Your task to perform on an android device: Search for macbook on newegg, select the first entry, and add it to the cart. Image 0: 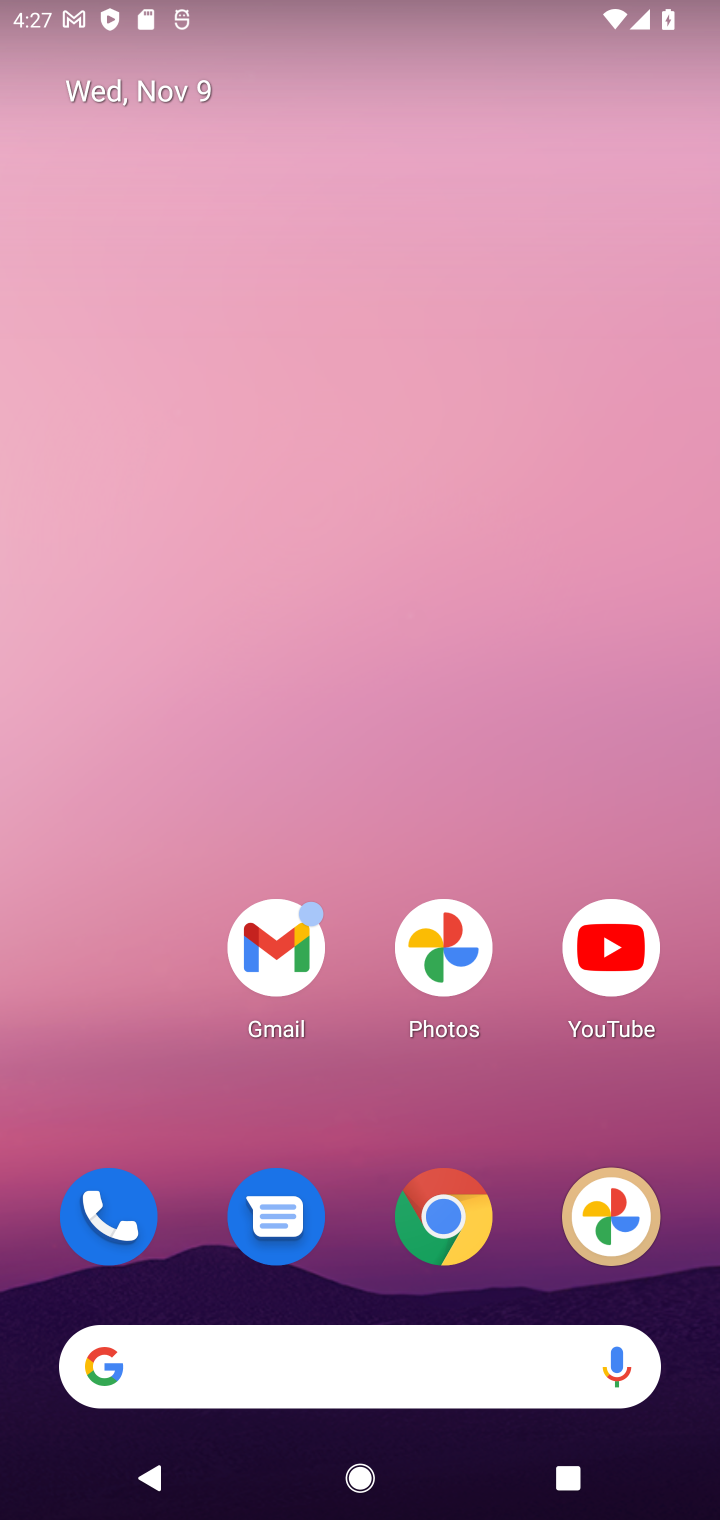
Step 0: drag from (352, 1107) to (376, 0)
Your task to perform on an android device: Search for macbook on newegg, select the first entry, and add it to the cart. Image 1: 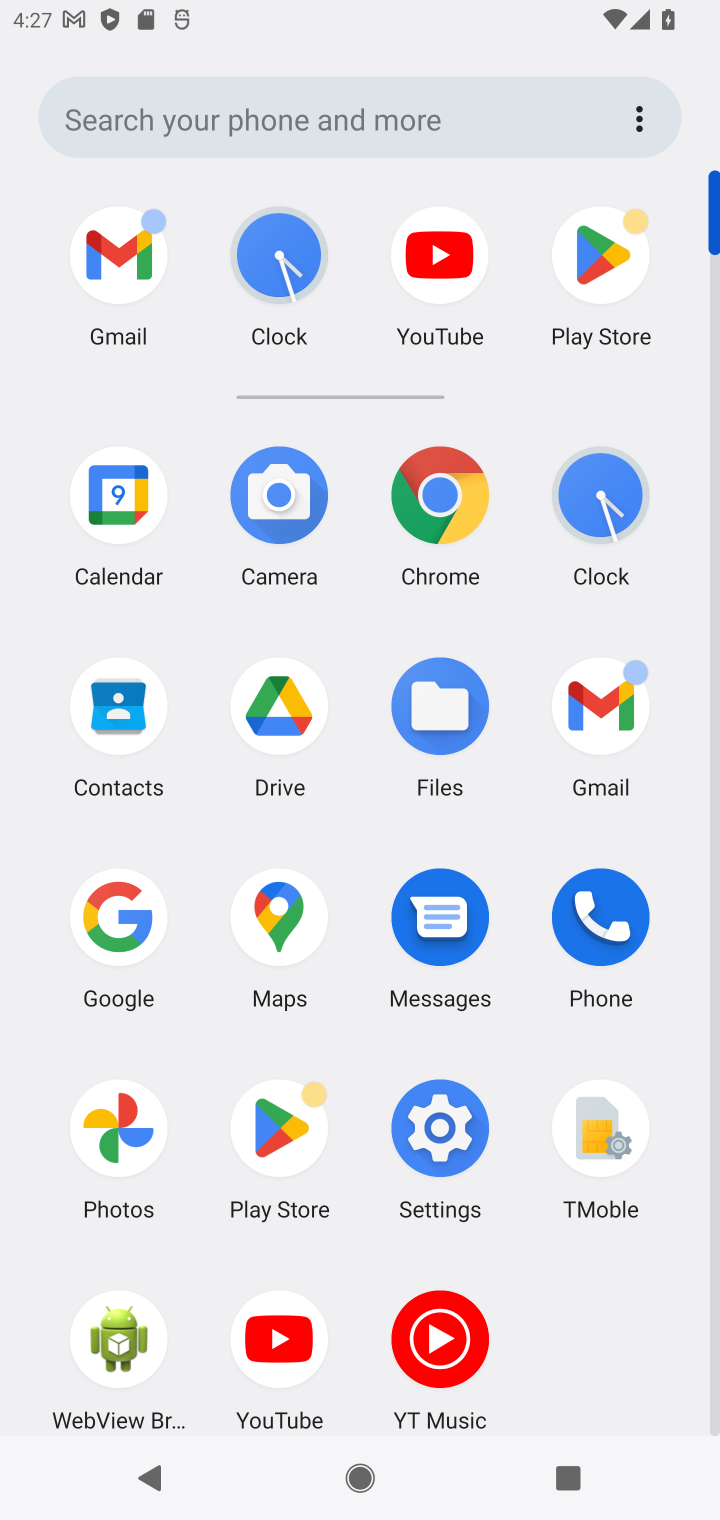
Step 1: click (449, 492)
Your task to perform on an android device: Search for macbook on newegg, select the first entry, and add it to the cart. Image 2: 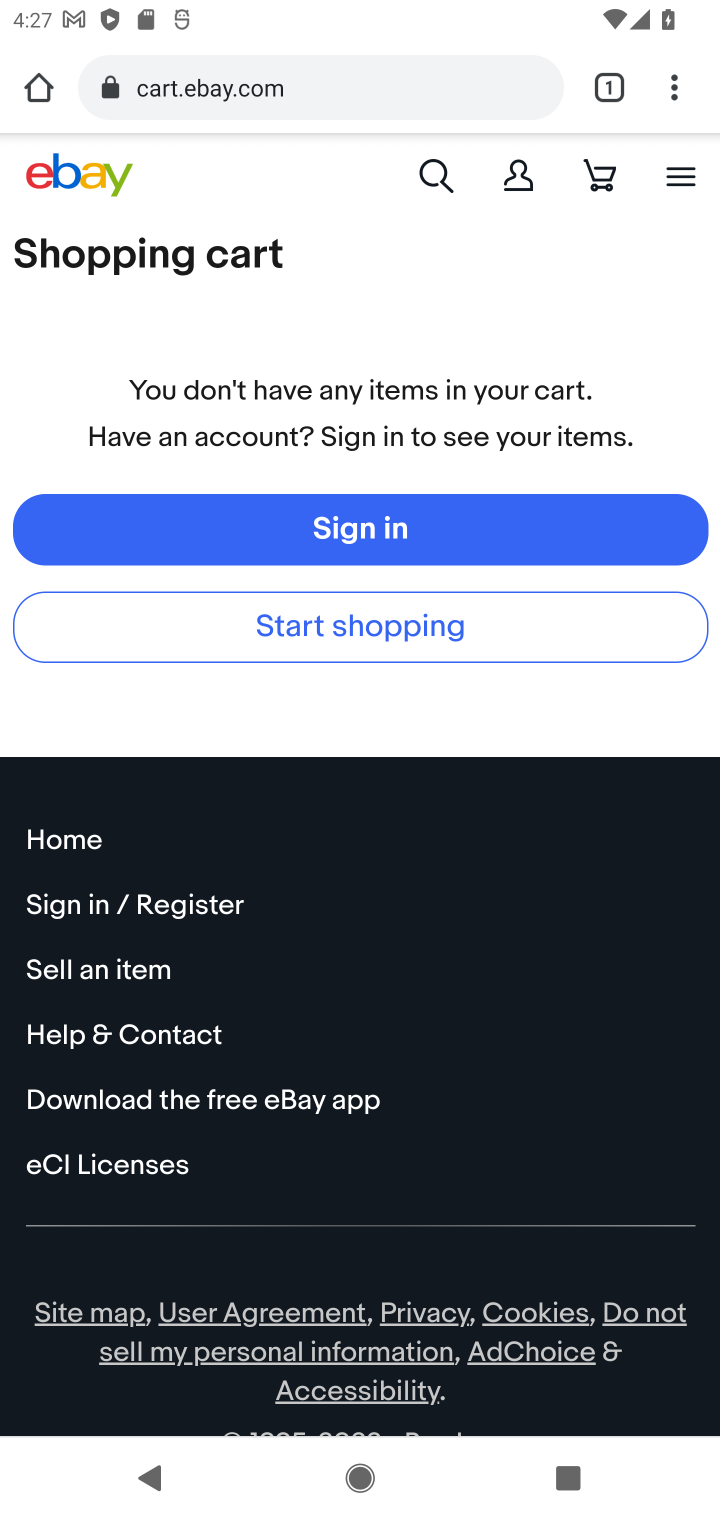
Step 2: click (395, 72)
Your task to perform on an android device: Search for macbook on newegg, select the first entry, and add it to the cart. Image 3: 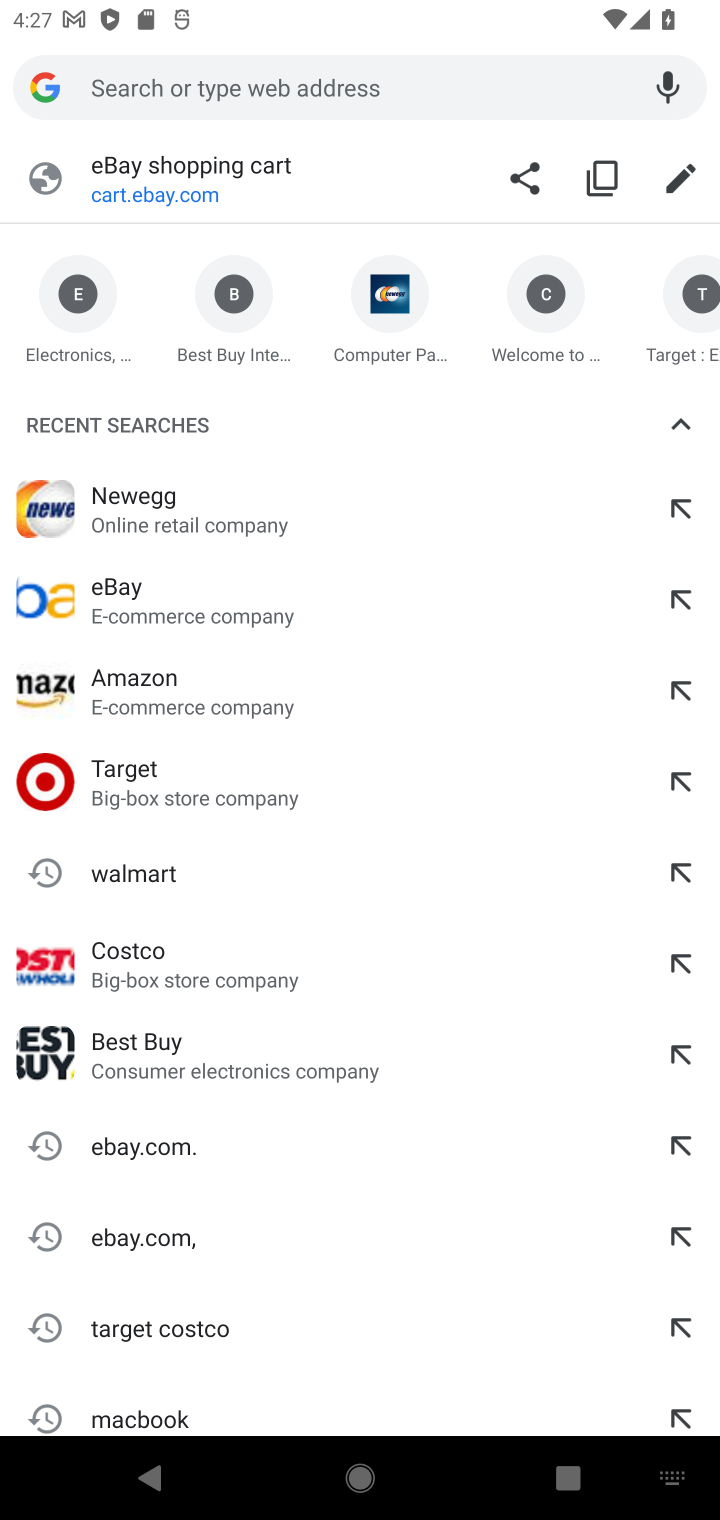
Step 3: click (145, 503)
Your task to perform on an android device: Search for macbook on newegg, select the first entry, and add it to the cart. Image 4: 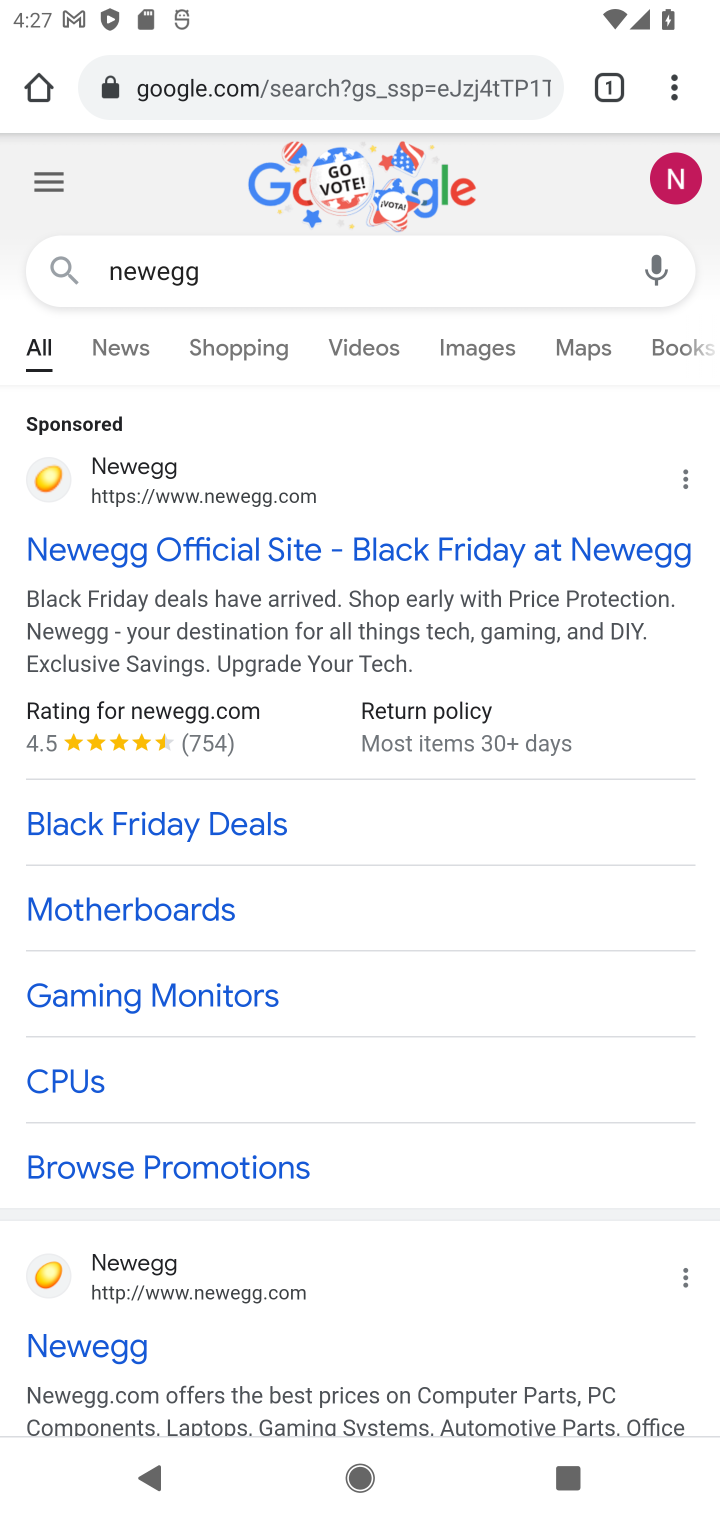
Step 4: drag from (427, 1024) to (423, 821)
Your task to perform on an android device: Search for macbook on newegg, select the first entry, and add it to the cart. Image 5: 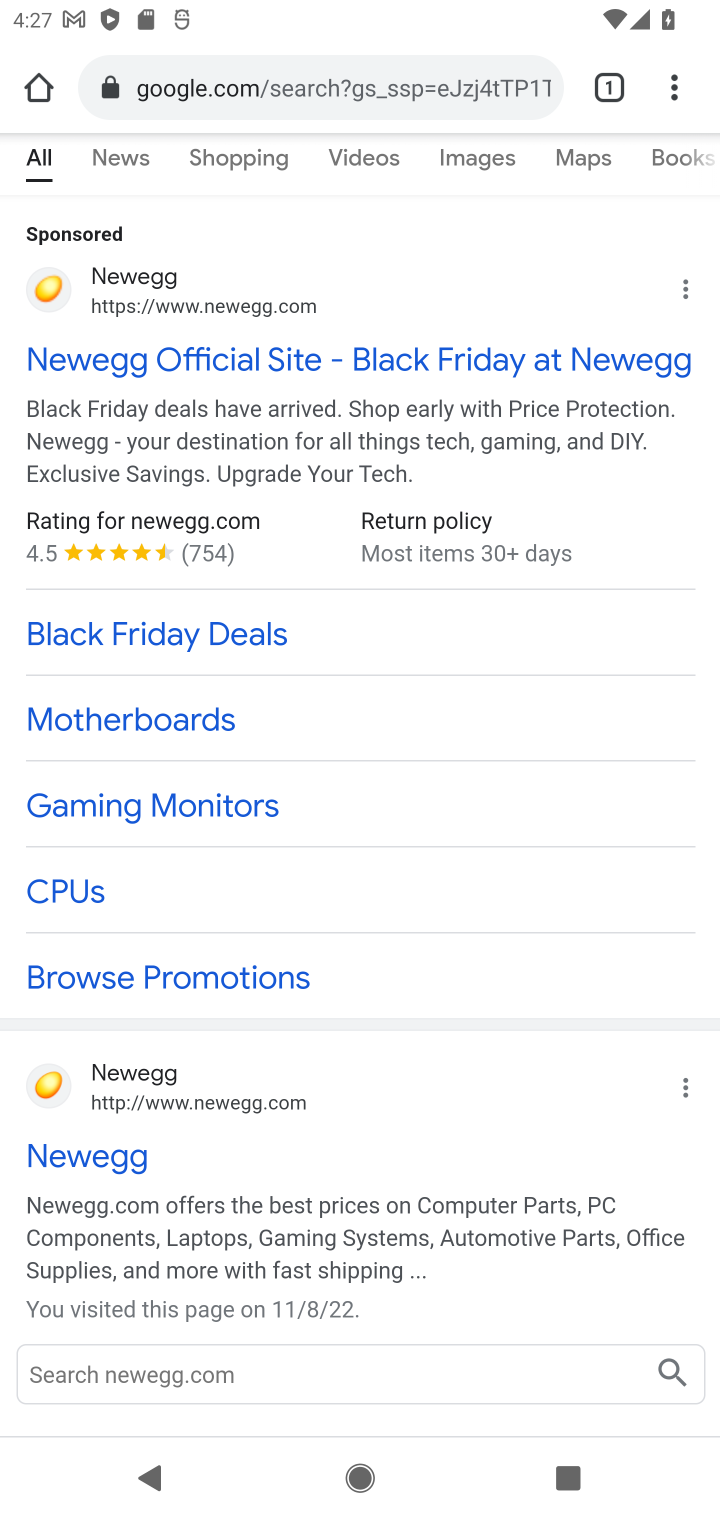
Step 5: click (108, 1152)
Your task to perform on an android device: Search for macbook on newegg, select the first entry, and add it to the cart. Image 6: 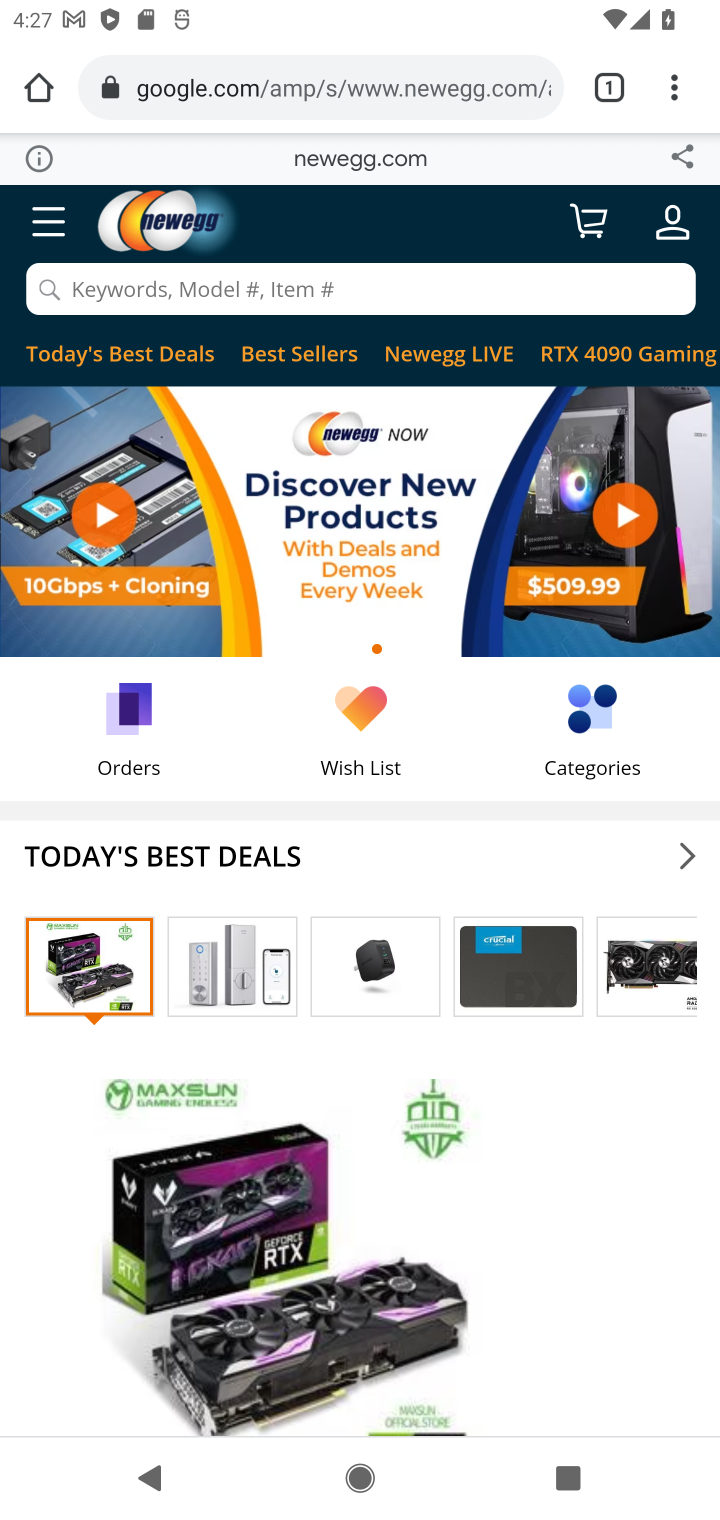
Step 6: click (329, 292)
Your task to perform on an android device: Search for macbook on newegg, select the first entry, and add it to the cart. Image 7: 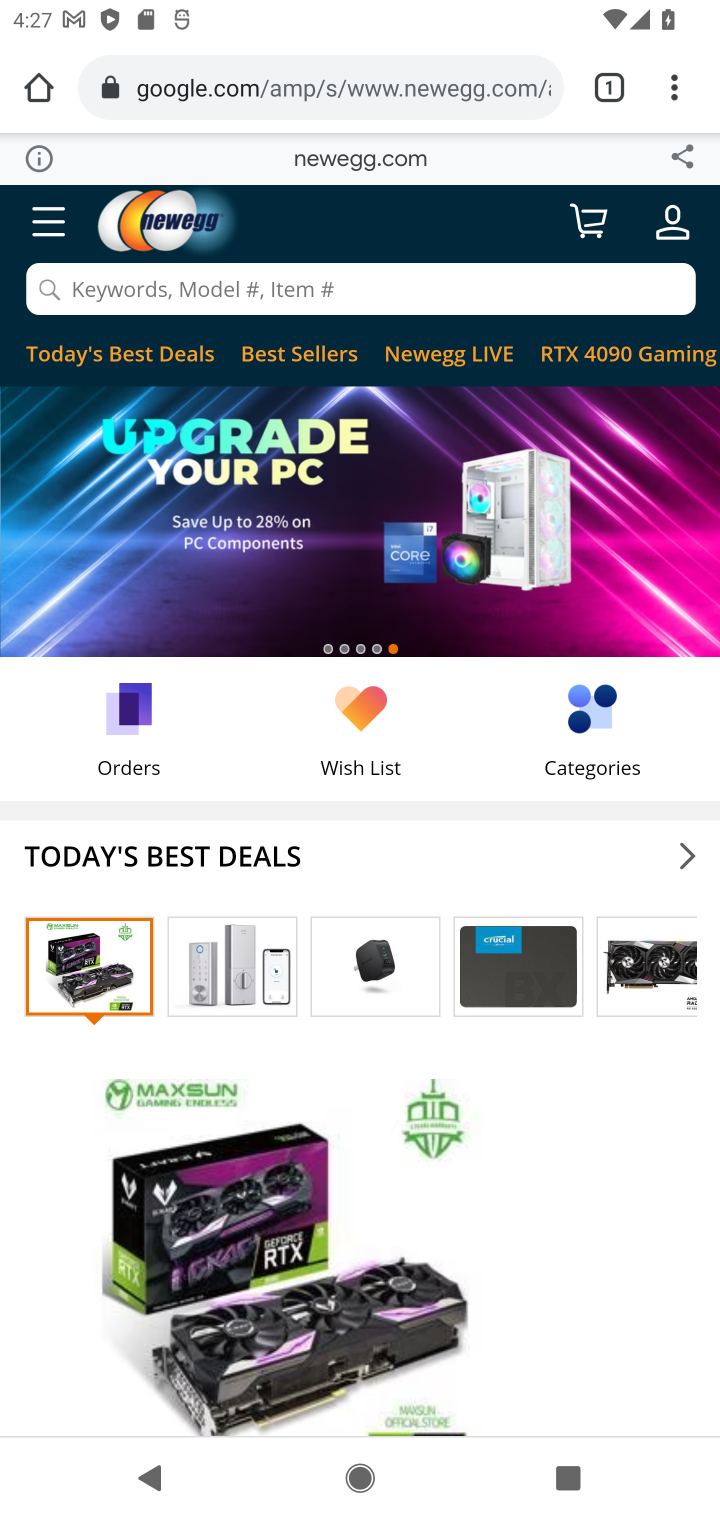
Step 7: click (261, 277)
Your task to perform on an android device: Search for macbook on newegg, select the first entry, and add it to the cart. Image 8: 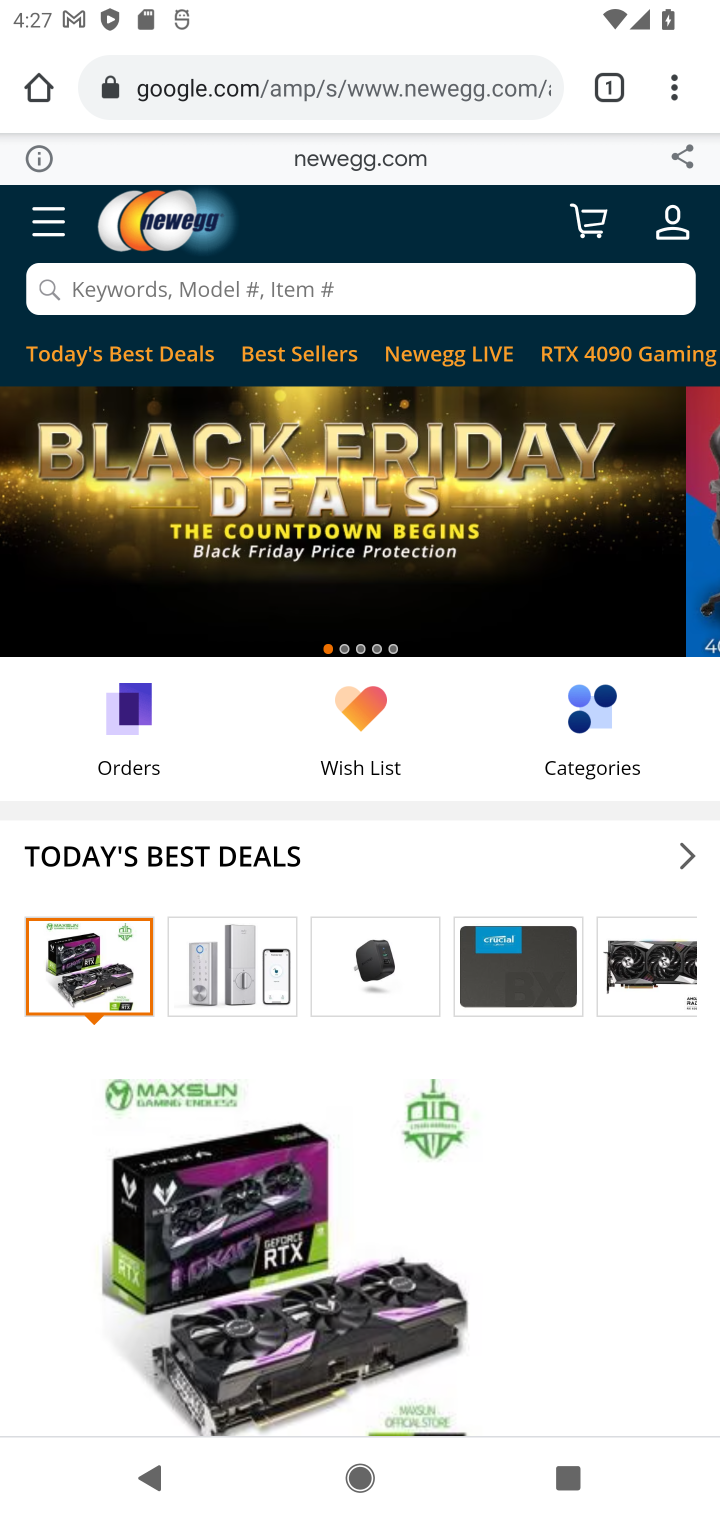
Step 8: click (527, 285)
Your task to perform on an android device: Search for macbook on newegg, select the first entry, and add it to the cart. Image 9: 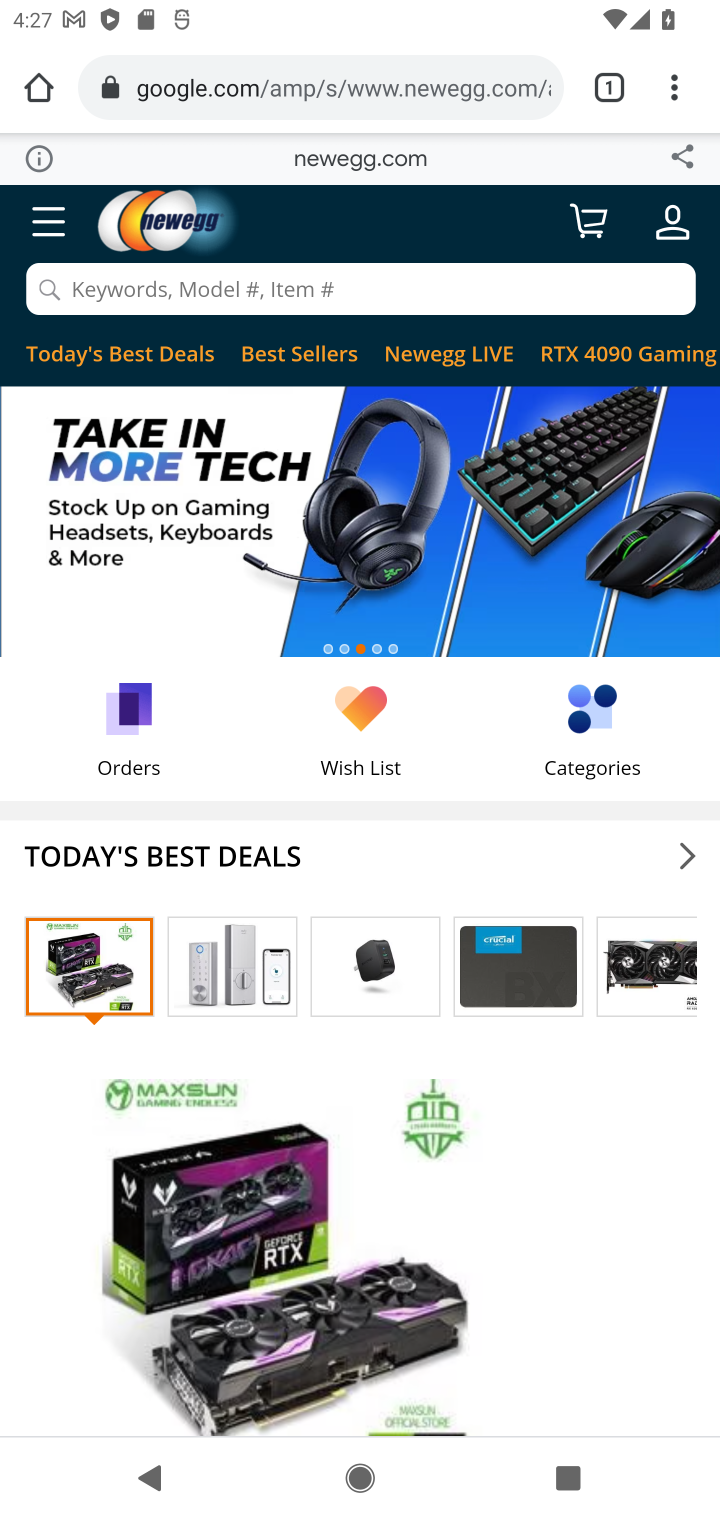
Step 9: type "macbook"
Your task to perform on an android device: Search for macbook on newegg, select the first entry, and add it to the cart. Image 10: 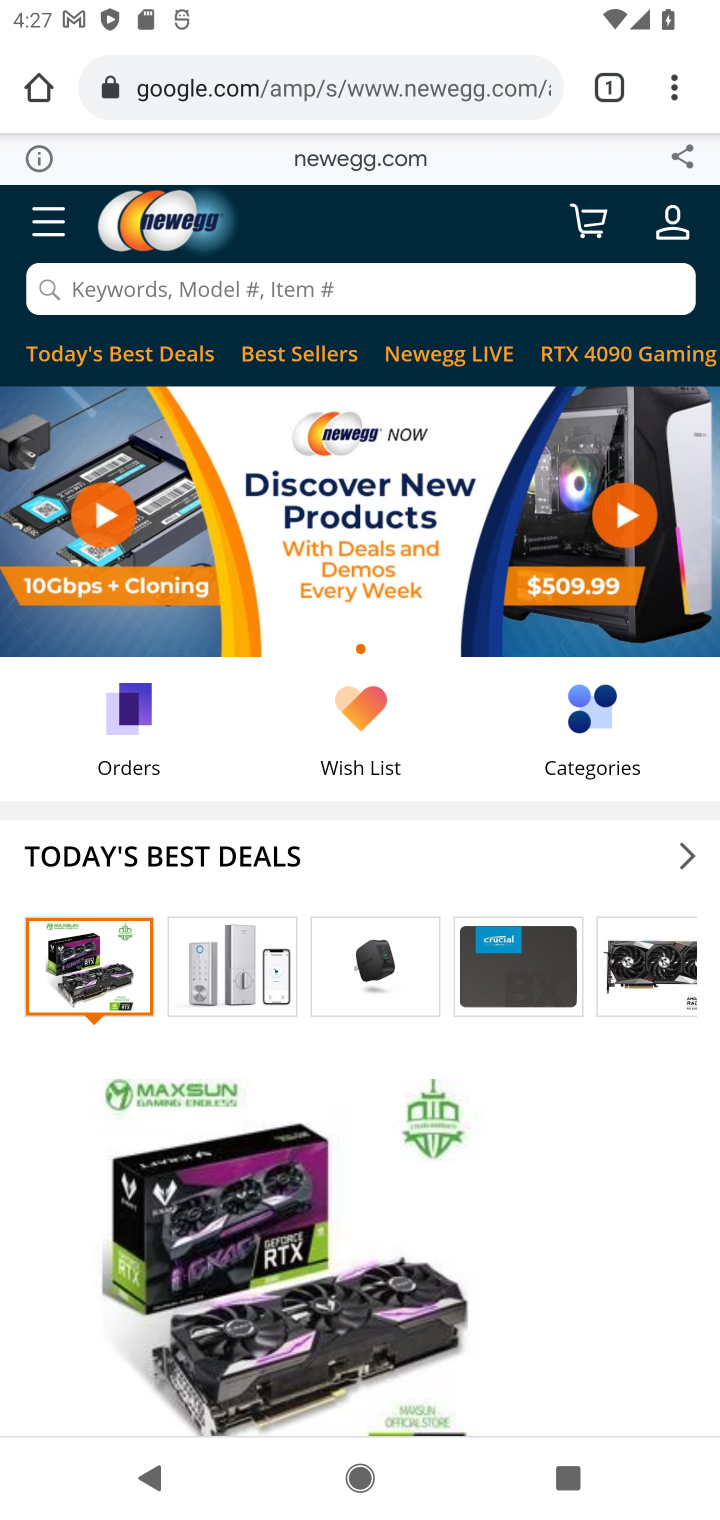
Step 10: press enter
Your task to perform on an android device: Search for macbook on newegg, select the first entry, and add it to the cart. Image 11: 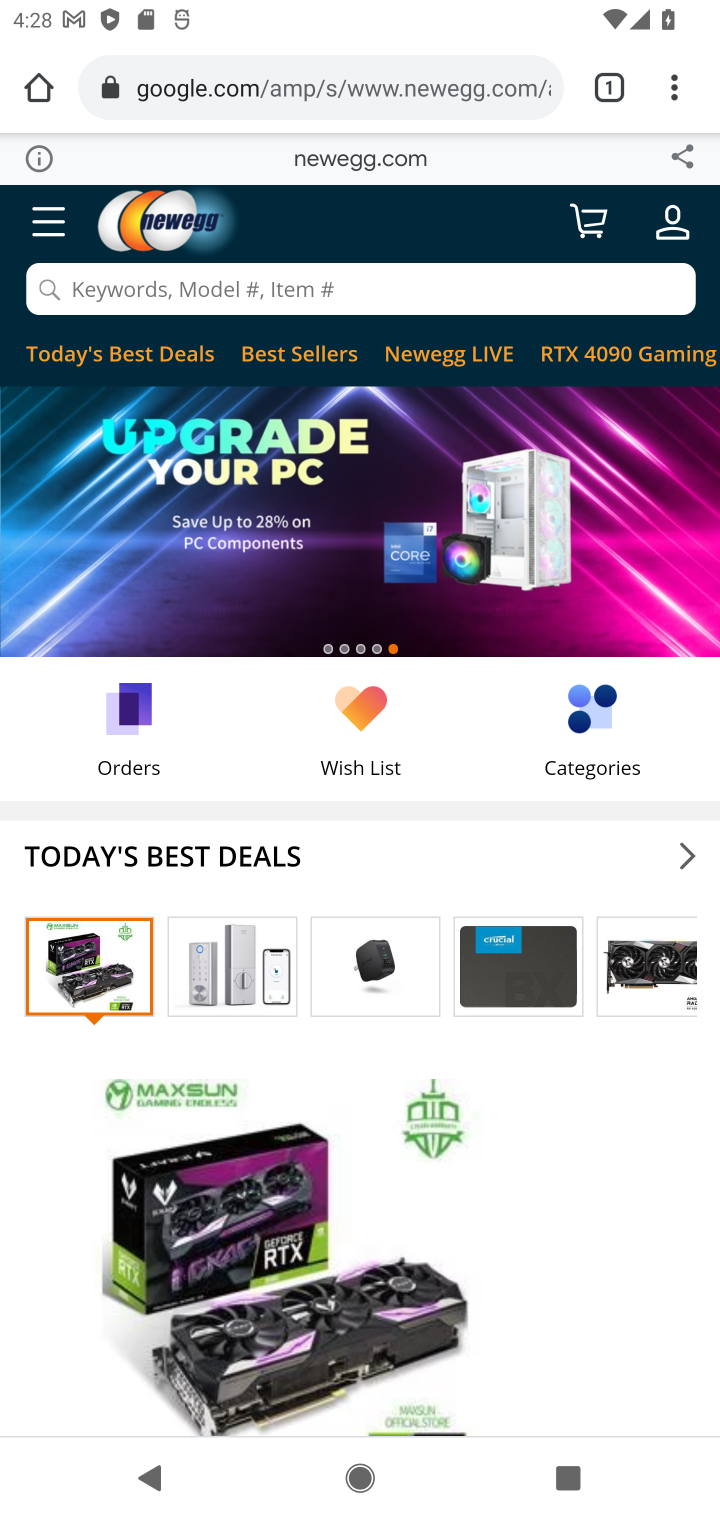
Step 11: click (456, 286)
Your task to perform on an android device: Search for macbook on newegg, select the first entry, and add it to the cart. Image 12: 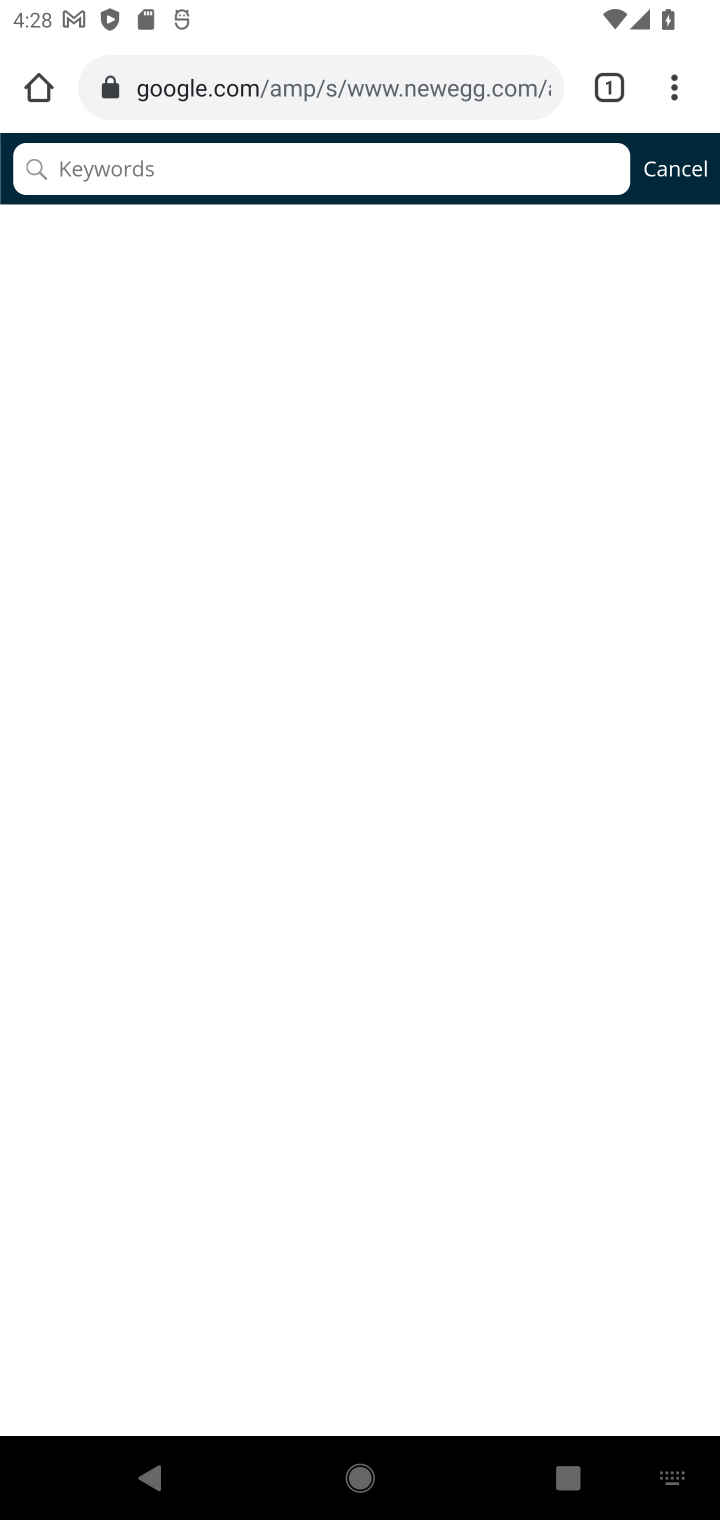
Step 12: type "macbook"
Your task to perform on an android device: Search for macbook on newegg, select the first entry, and add it to the cart. Image 13: 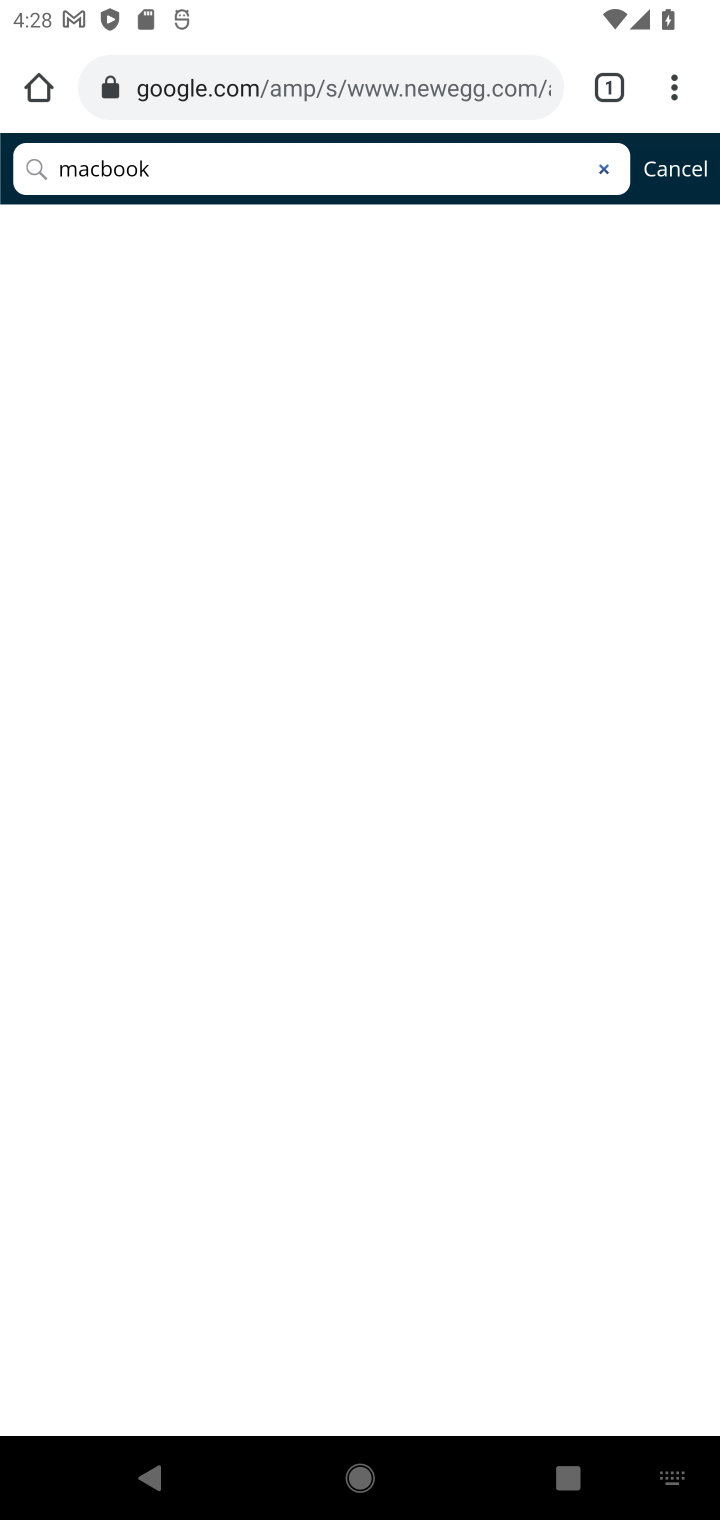
Step 13: press enter
Your task to perform on an android device: Search for macbook on newegg, select the first entry, and add it to the cart. Image 14: 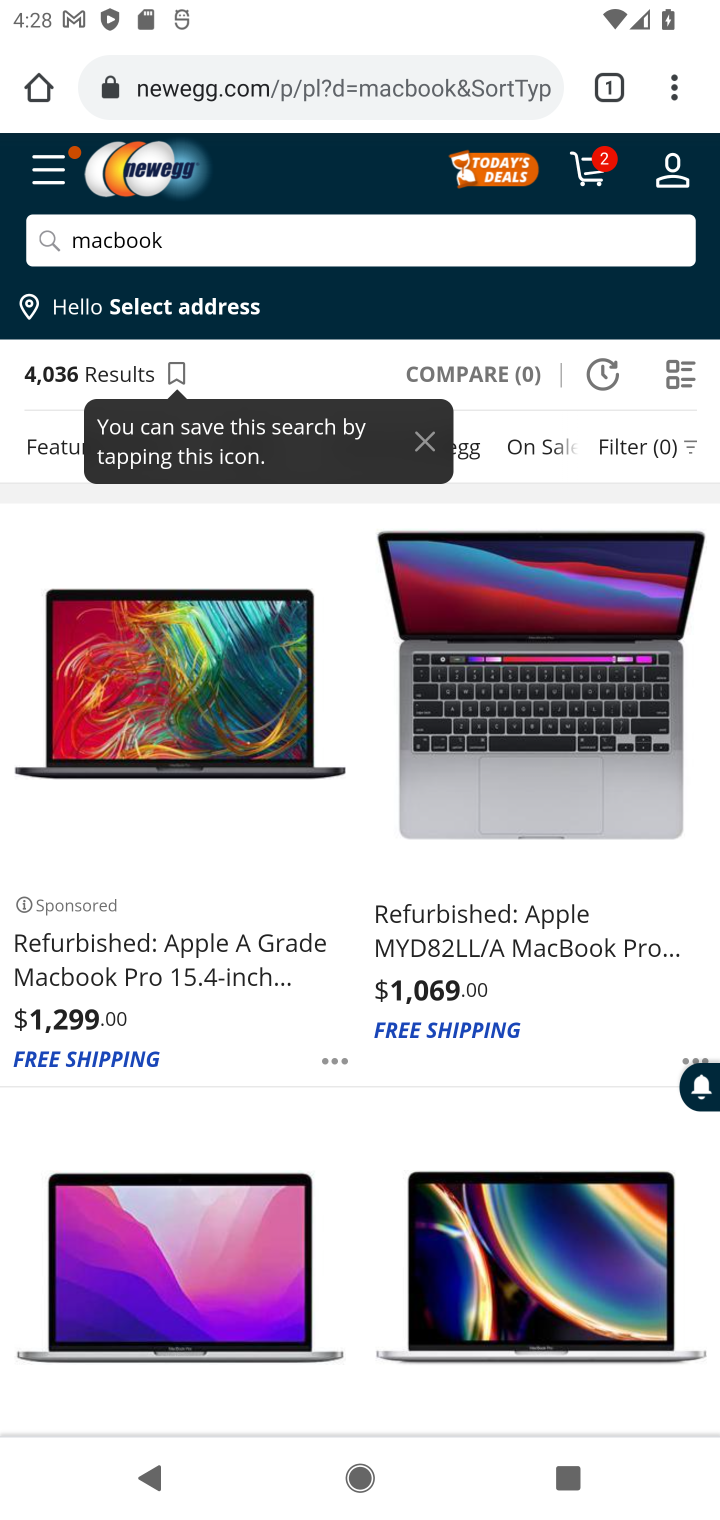
Step 14: click (530, 712)
Your task to perform on an android device: Search for macbook on newegg, select the first entry, and add it to the cart. Image 15: 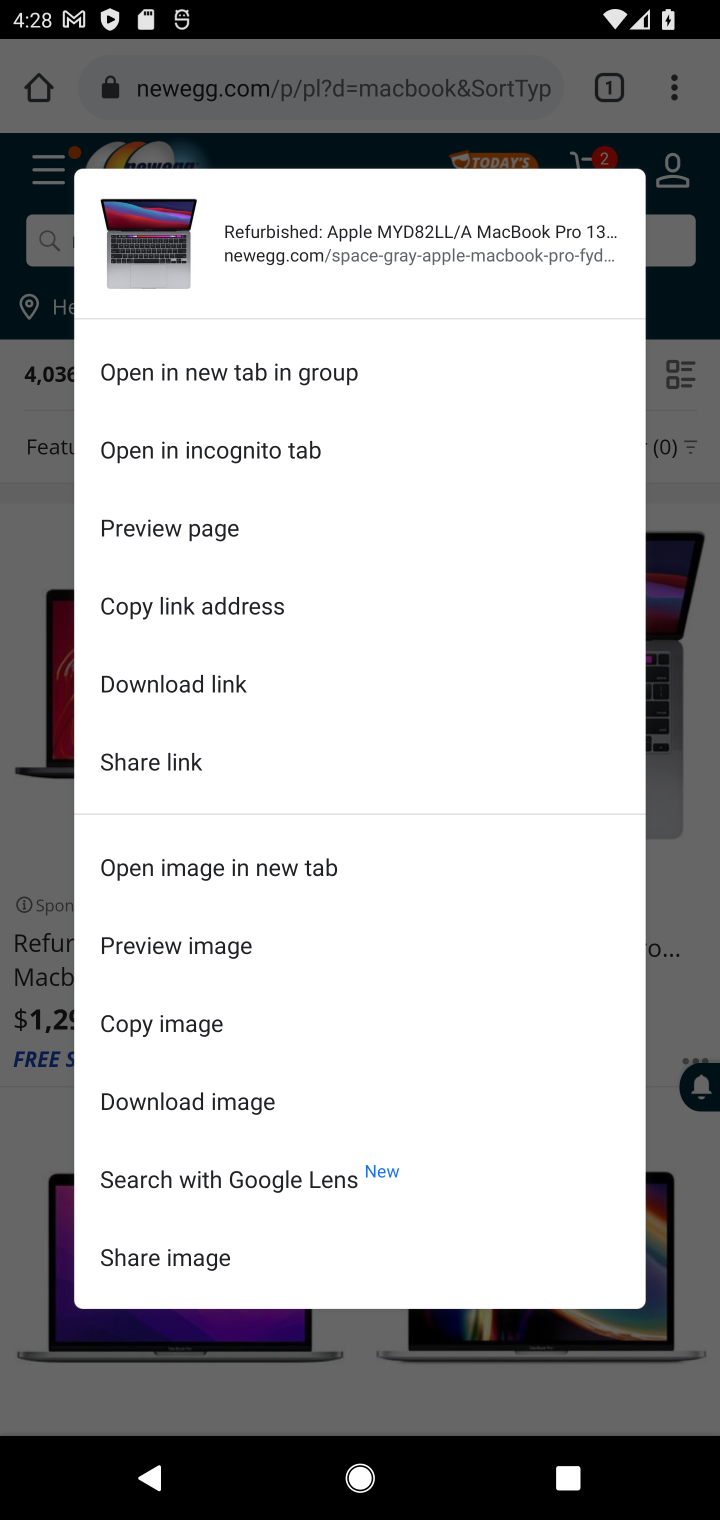
Step 15: click (670, 670)
Your task to perform on an android device: Search for macbook on newegg, select the first entry, and add it to the cart. Image 16: 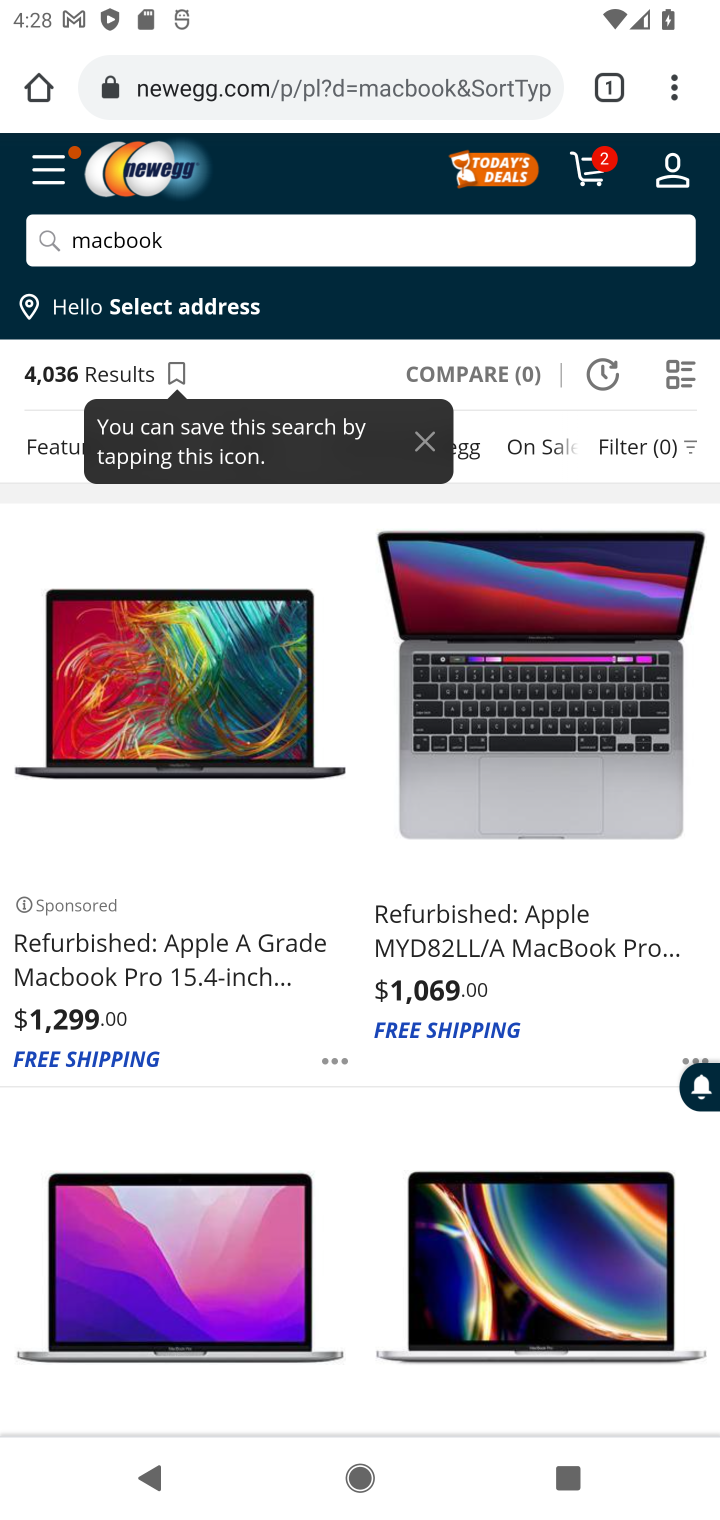
Step 16: click (486, 906)
Your task to perform on an android device: Search for macbook on newegg, select the first entry, and add it to the cart. Image 17: 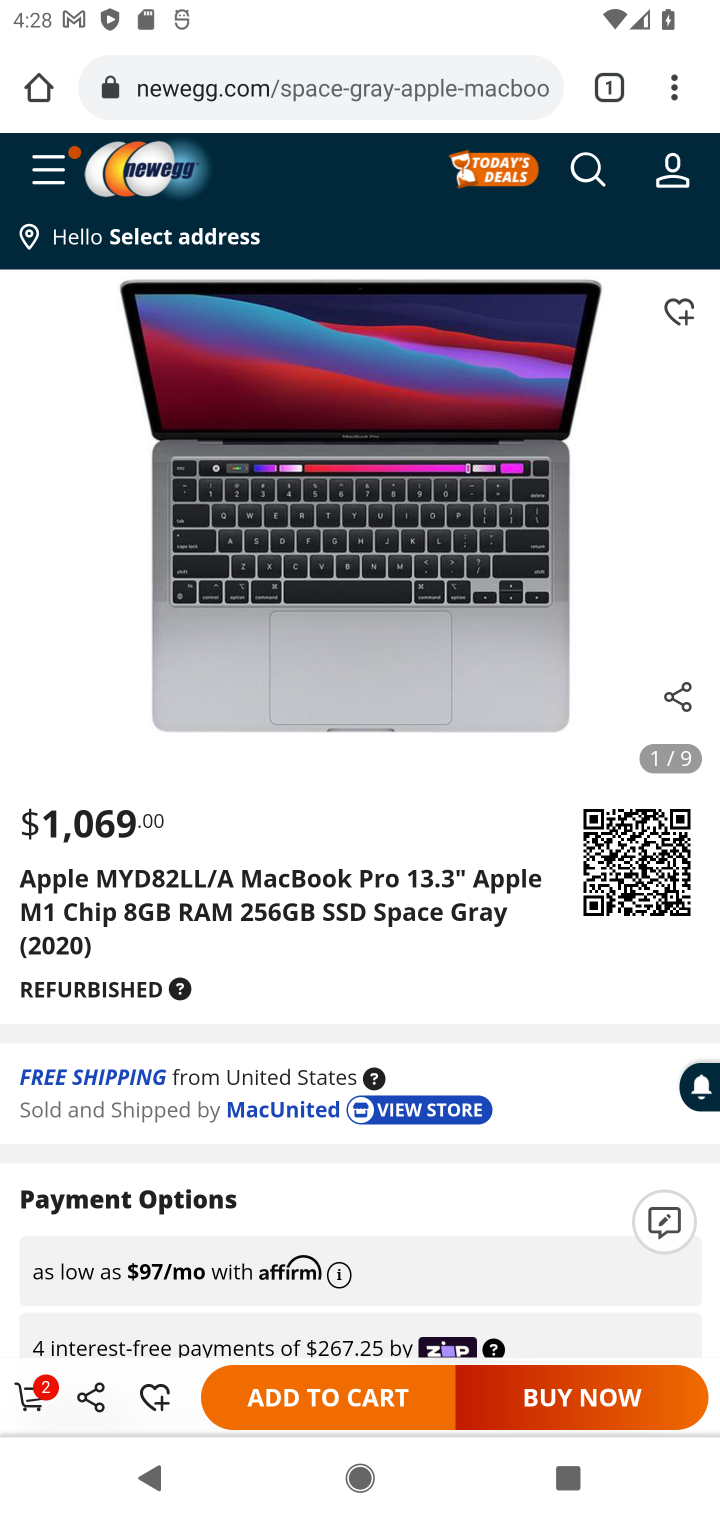
Step 17: click (351, 1403)
Your task to perform on an android device: Search for macbook on newegg, select the first entry, and add it to the cart. Image 18: 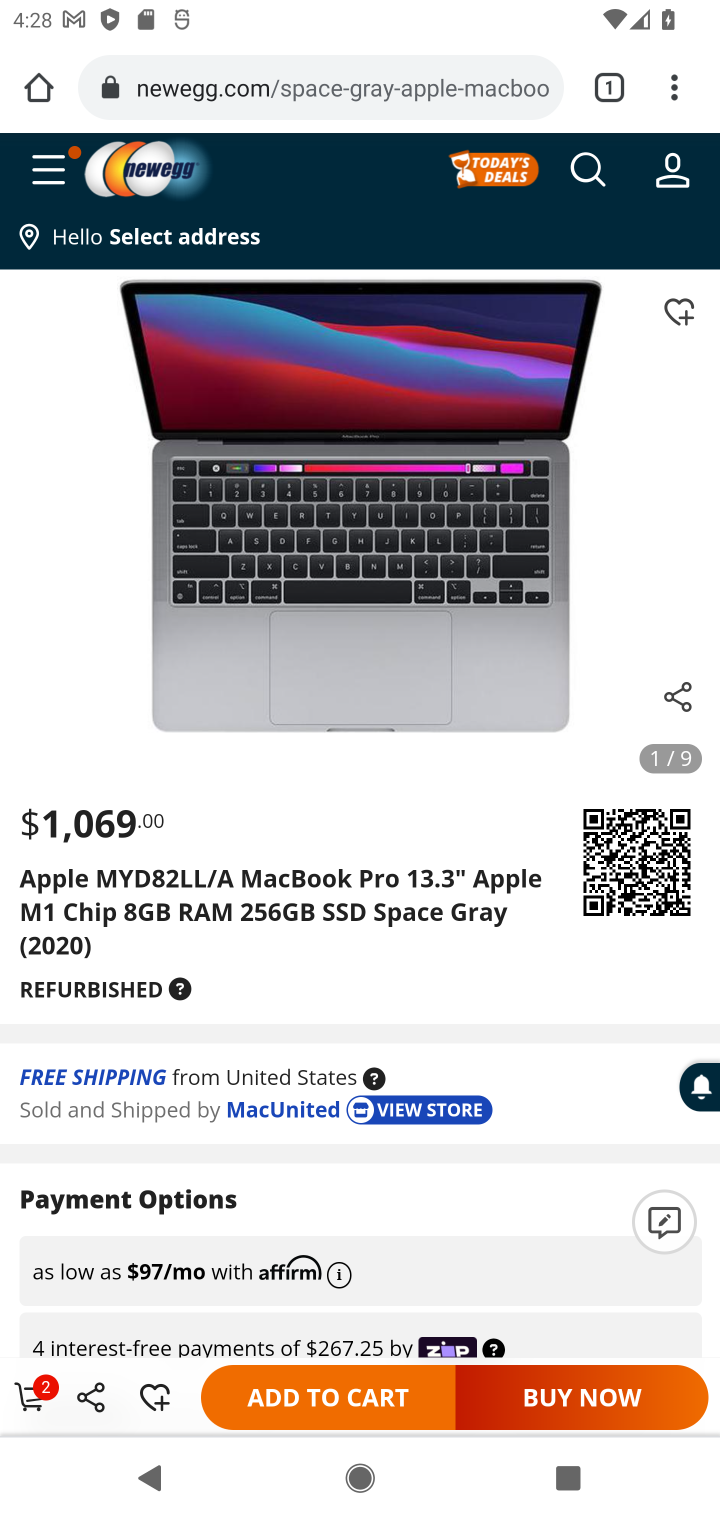
Step 18: click (351, 1407)
Your task to perform on an android device: Search for macbook on newegg, select the first entry, and add it to the cart. Image 19: 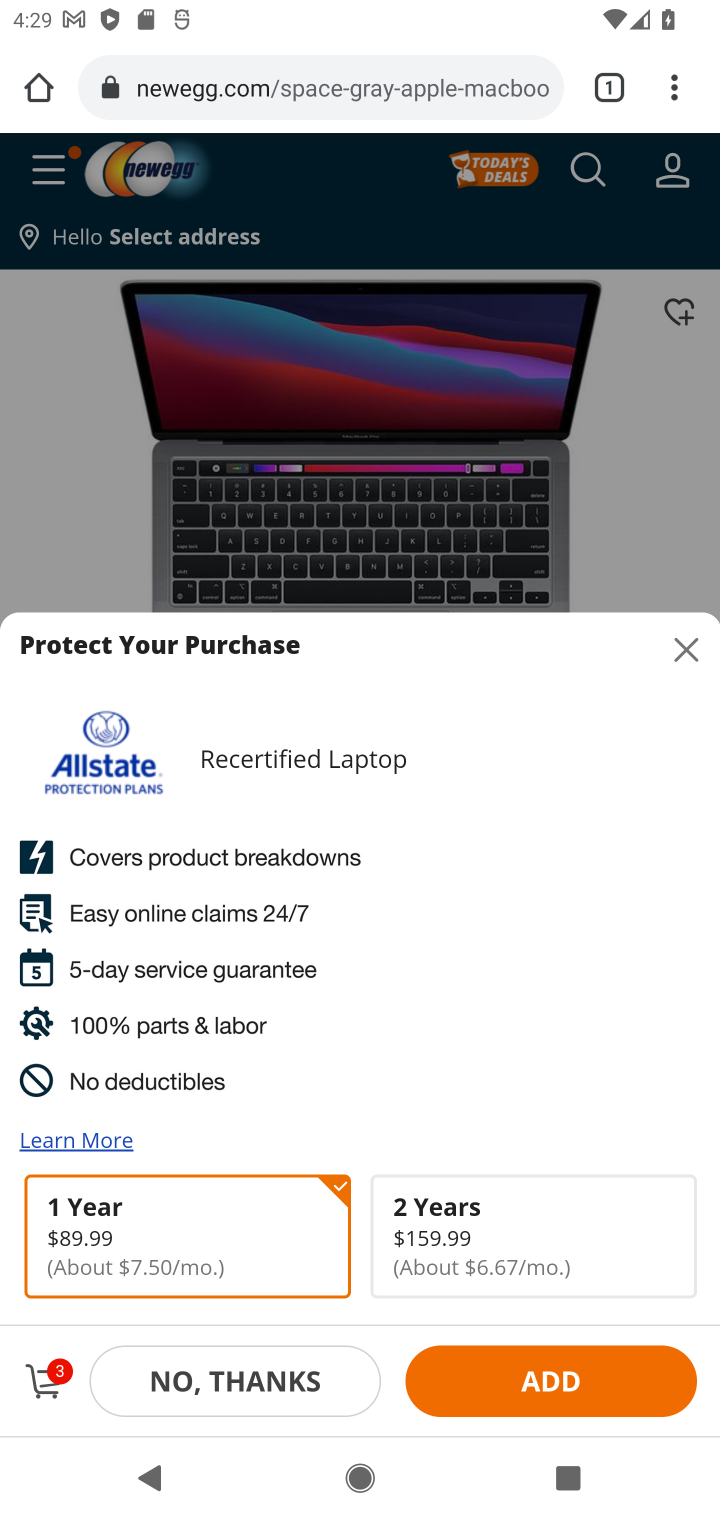
Step 19: task complete